Your task to perform on an android device: Turn on the flashlight Image 0: 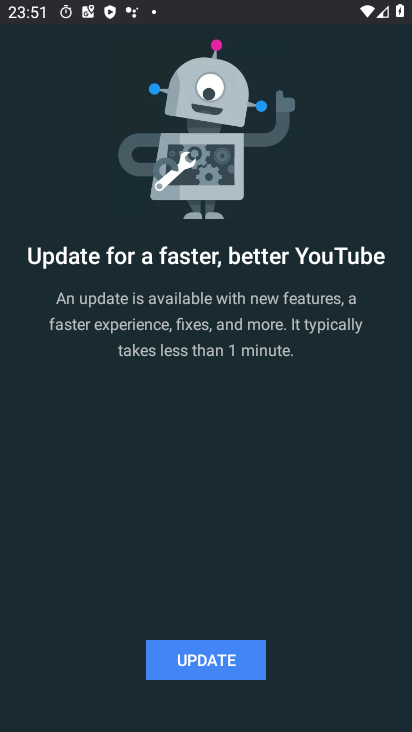
Step 0: press home button
Your task to perform on an android device: Turn on the flashlight Image 1: 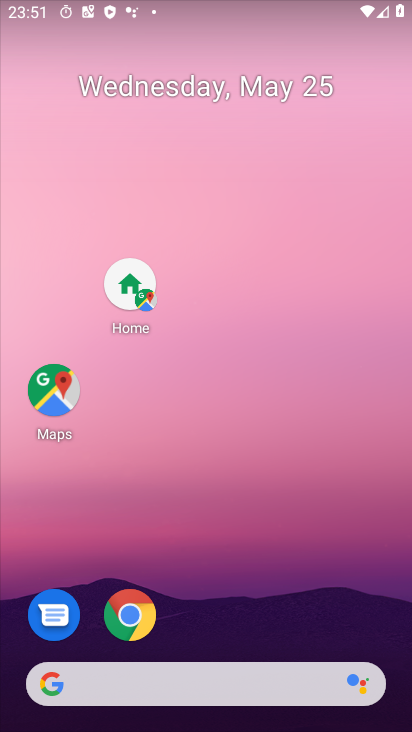
Step 1: task complete